Your task to perform on an android device: change the clock display to digital Image 0: 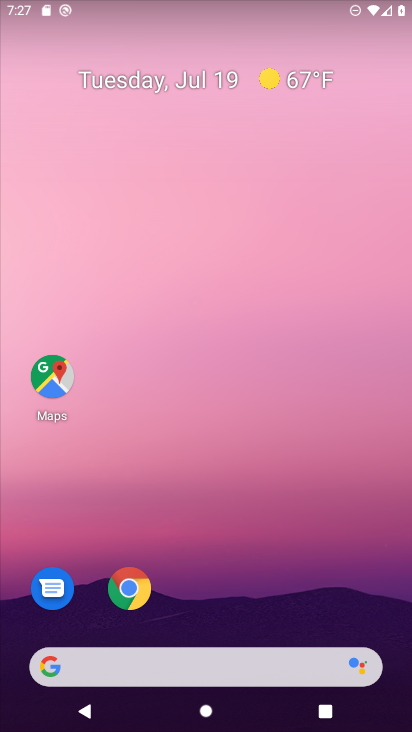
Step 0: click (368, 165)
Your task to perform on an android device: change the clock display to digital Image 1: 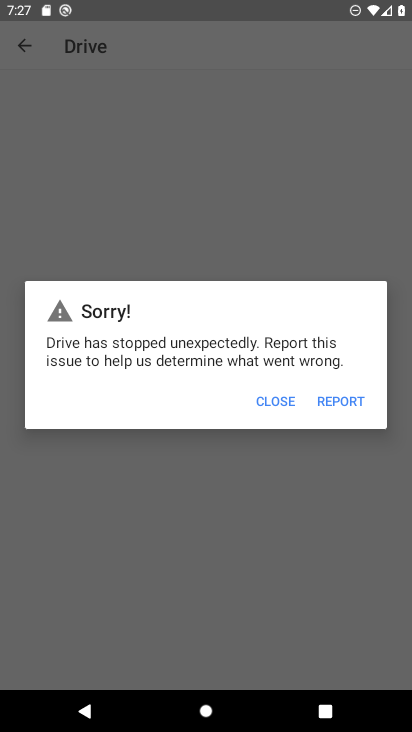
Step 1: press home button
Your task to perform on an android device: change the clock display to digital Image 2: 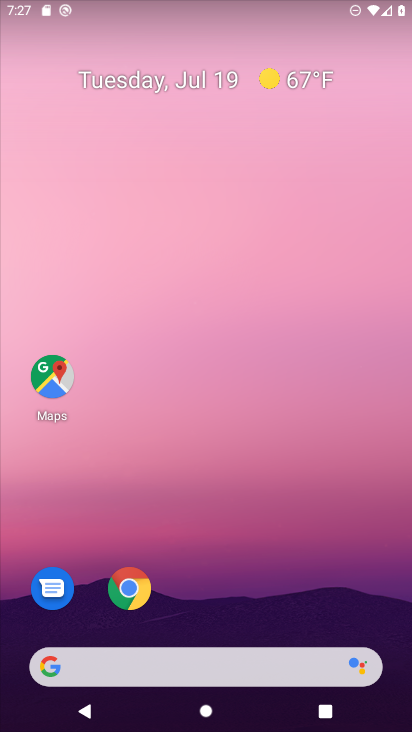
Step 2: drag from (359, 601) to (384, 45)
Your task to perform on an android device: change the clock display to digital Image 3: 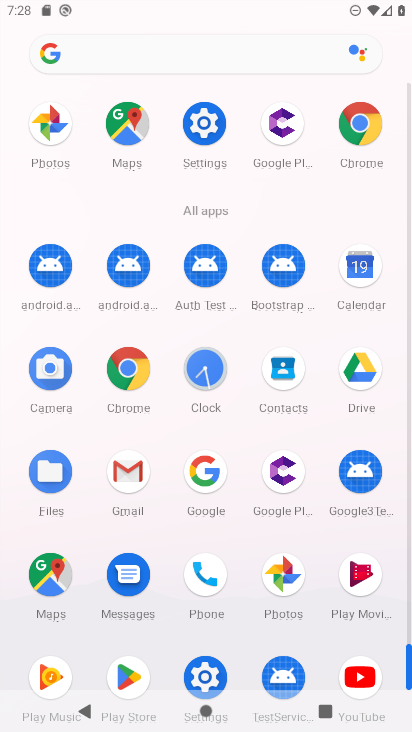
Step 3: click (212, 375)
Your task to perform on an android device: change the clock display to digital Image 4: 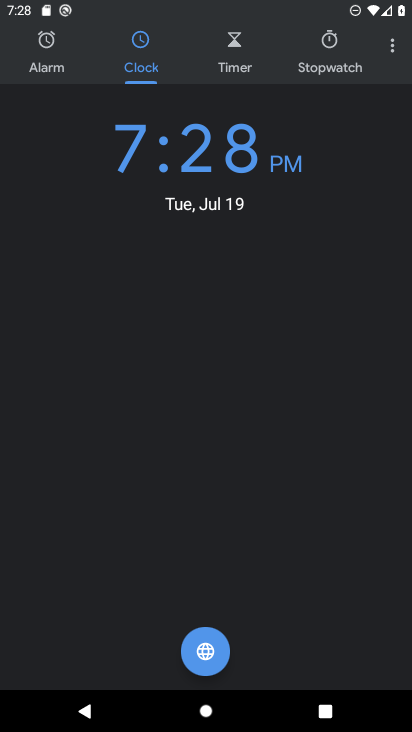
Step 4: click (393, 50)
Your task to perform on an android device: change the clock display to digital Image 5: 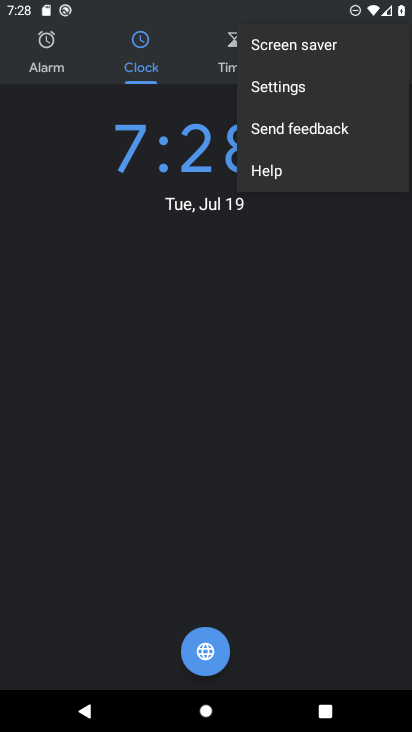
Step 5: click (324, 85)
Your task to perform on an android device: change the clock display to digital Image 6: 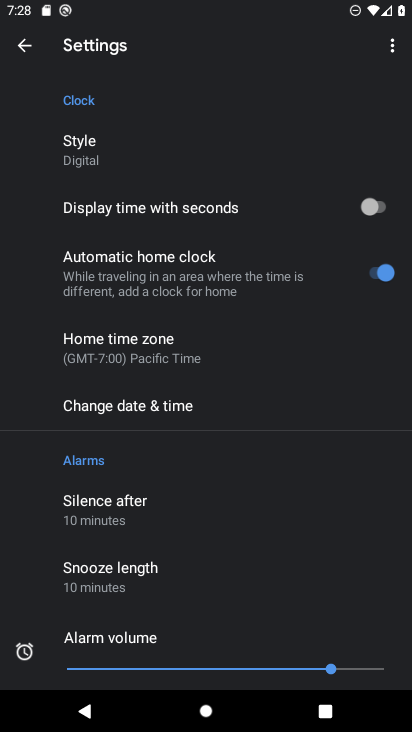
Step 6: task complete